Your task to perform on an android device: Open Wikipedia Image 0: 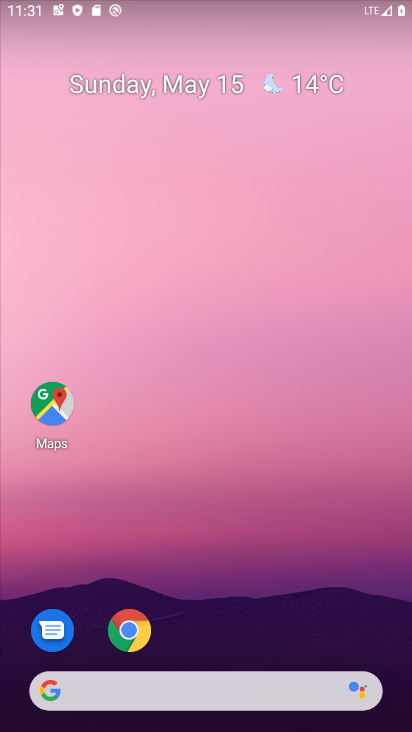
Step 0: click (132, 627)
Your task to perform on an android device: Open Wikipedia Image 1: 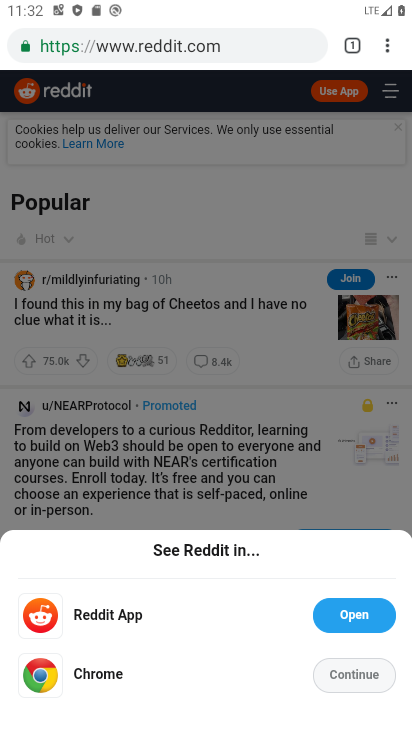
Step 1: click (358, 47)
Your task to perform on an android device: Open Wikipedia Image 2: 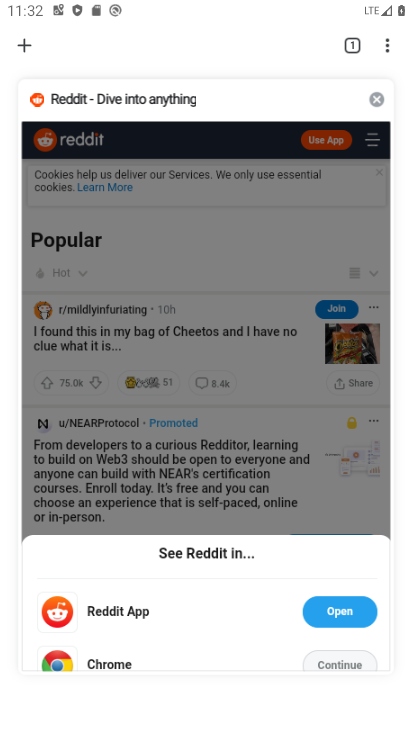
Step 2: click (380, 104)
Your task to perform on an android device: Open Wikipedia Image 3: 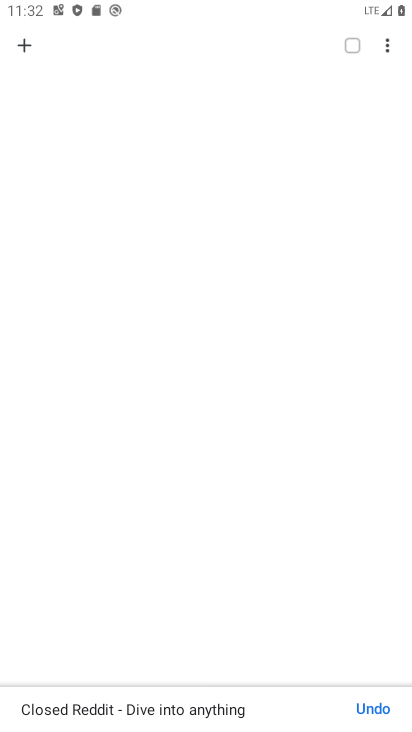
Step 3: click (28, 52)
Your task to perform on an android device: Open Wikipedia Image 4: 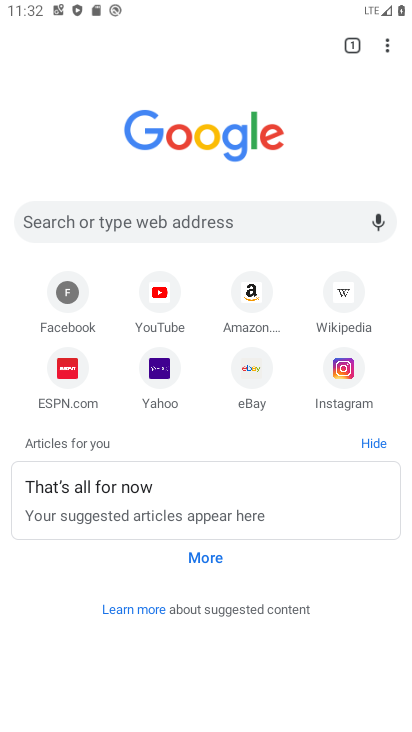
Step 4: click (339, 294)
Your task to perform on an android device: Open Wikipedia Image 5: 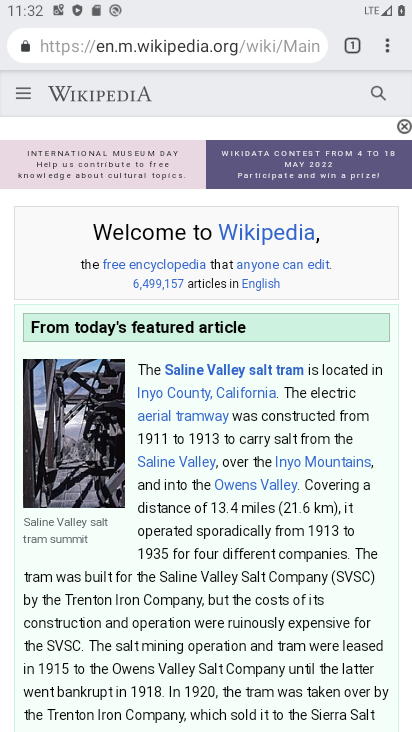
Step 5: task complete